Your task to perform on an android device: turn on translation in the chrome app Image 0: 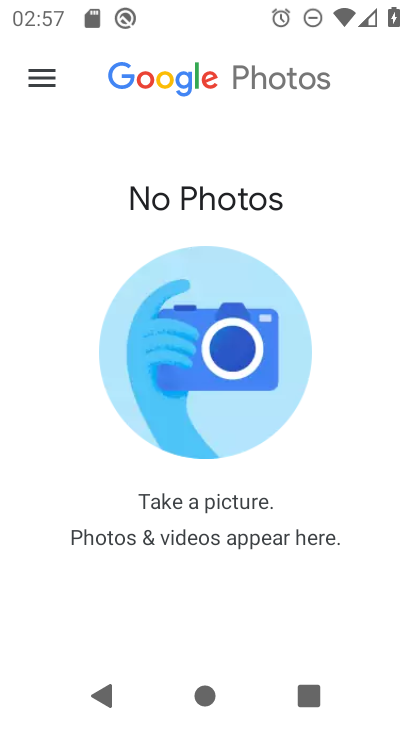
Step 0: press home button
Your task to perform on an android device: turn on translation in the chrome app Image 1: 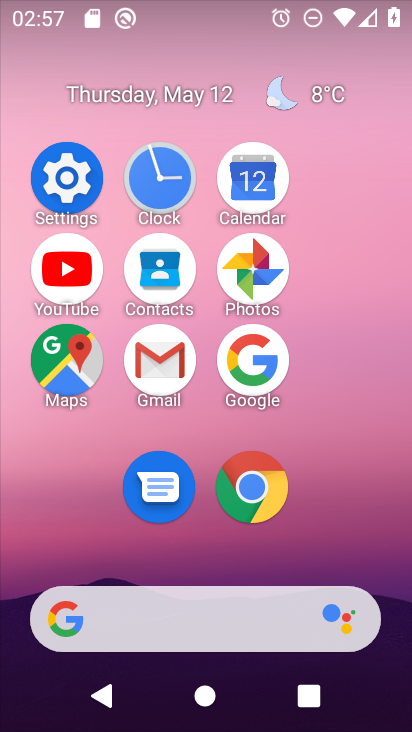
Step 1: click (280, 488)
Your task to perform on an android device: turn on translation in the chrome app Image 2: 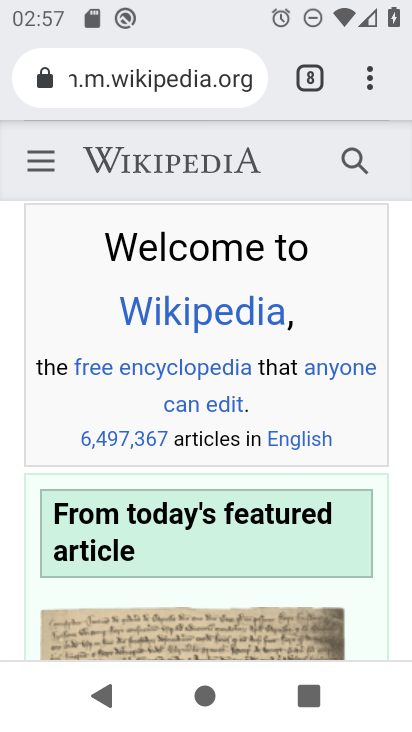
Step 2: click (373, 71)
Your task to perform on an android device: turn on translation in the chrome app Image 3: 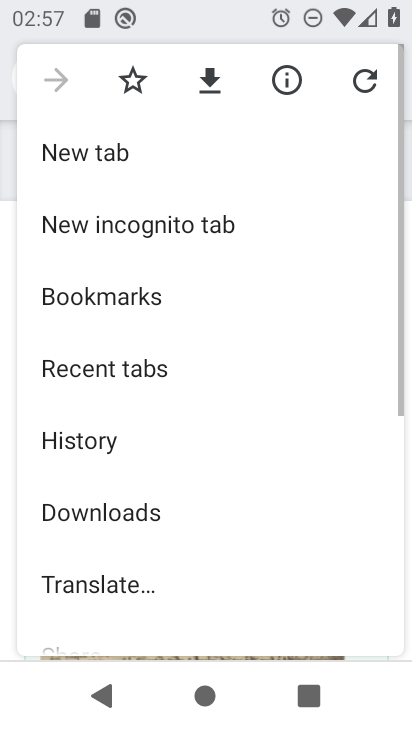
Step 3: drag from (241, 532) to (299, 119)
Your task to perform on an android device: turn on translation in the chrome app Image 4: 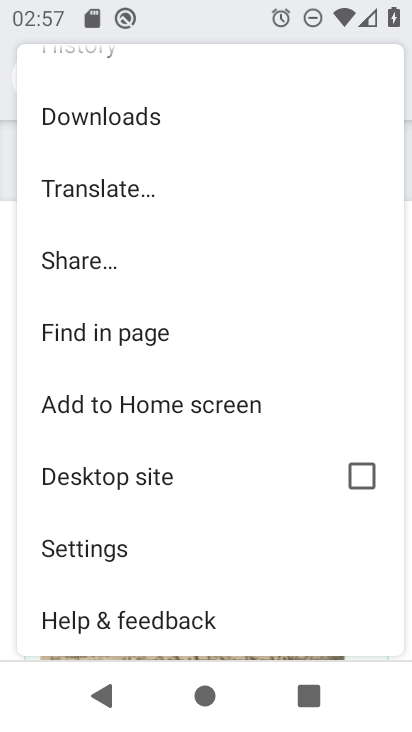
Step 4: click (191, 543)
Your task to perform on an android device: turn on translation in the chrome app Image 5: 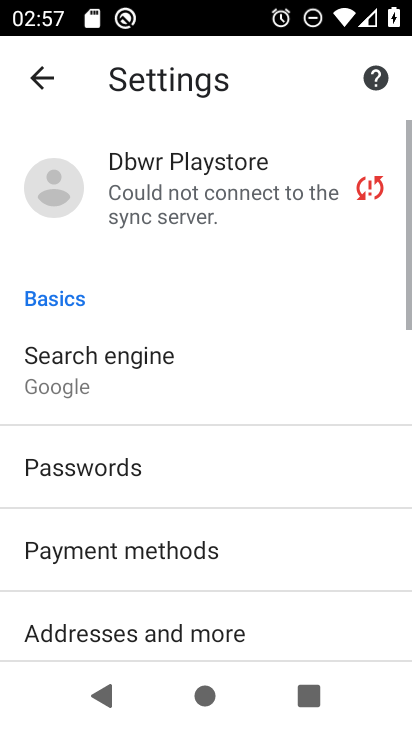
Step 5: drag from (188, 531) to (203, 167)
Your task to perform on an android device: turn on translation in the chrome app Image 6: 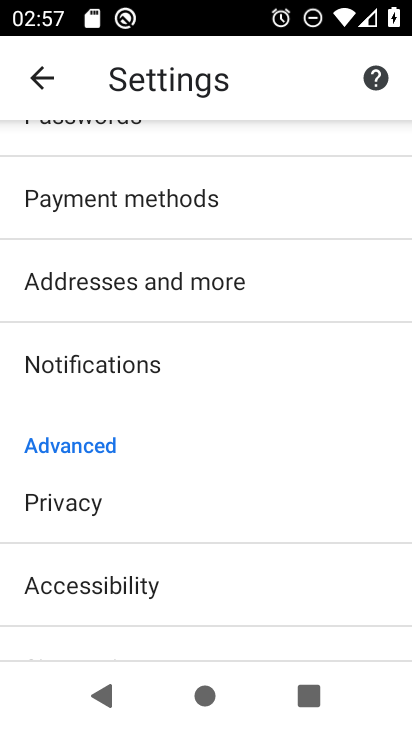
Step 6: drag from (285, 539) to (299, 215)
Your task to perform on an android device: turn on translation in the chrome app Image 7: 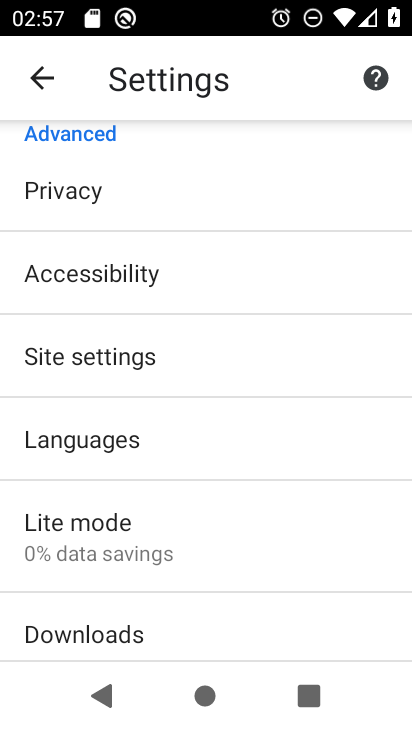
Step 7: click (209, 448)
Your task to perform on an android device: turn on translation in the chrome app Image 8: 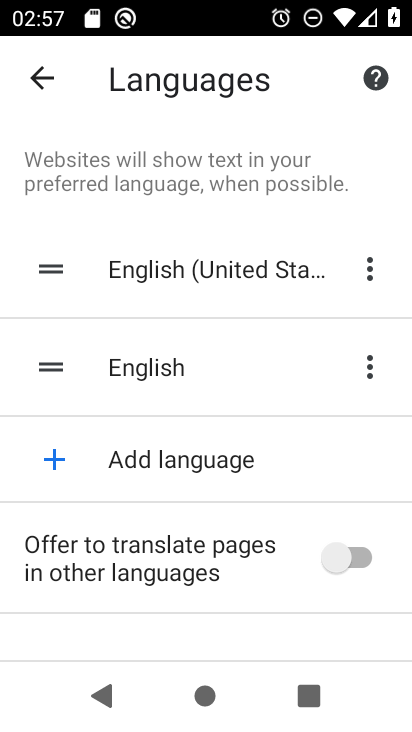
Step 8: click (351, 564)
Your task to perform on an android device: turn on translation in the chrome app Image 9: 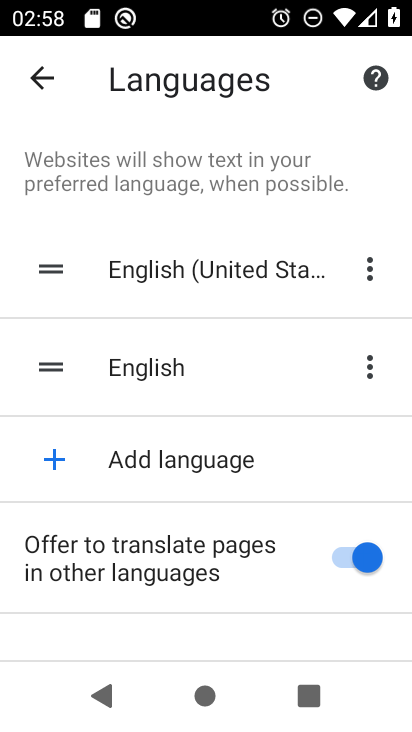
Step 9: task complete